Your task to perform on an android device: Open CNN.com Image 0: 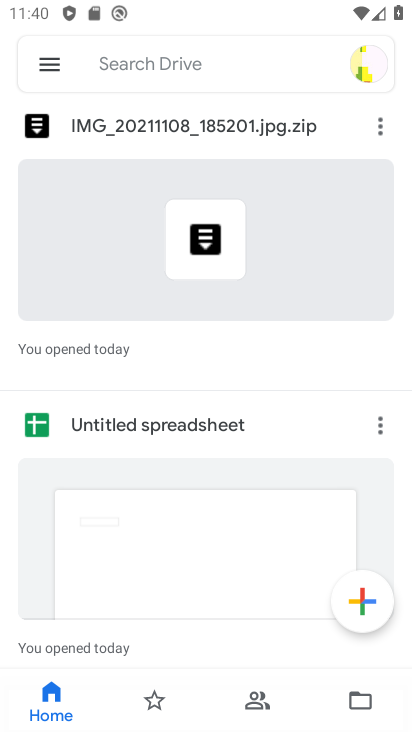
Step 0: press home button
Your task to perform on an android device: Open CNN.com Image 1: 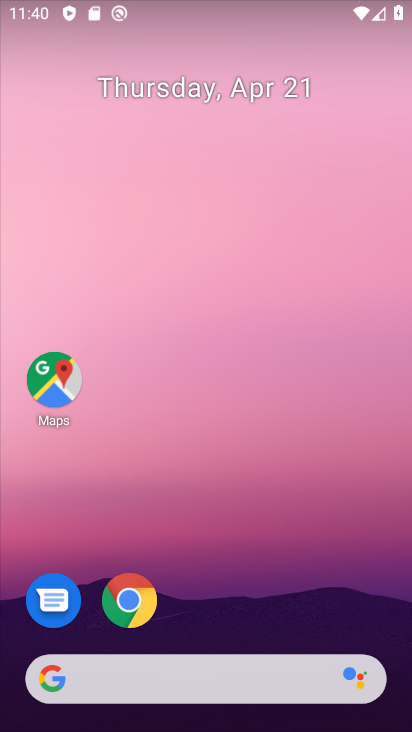
Step 1: click (127, 596)
Your task to perform on an android device: Open CNN.com Image 2: 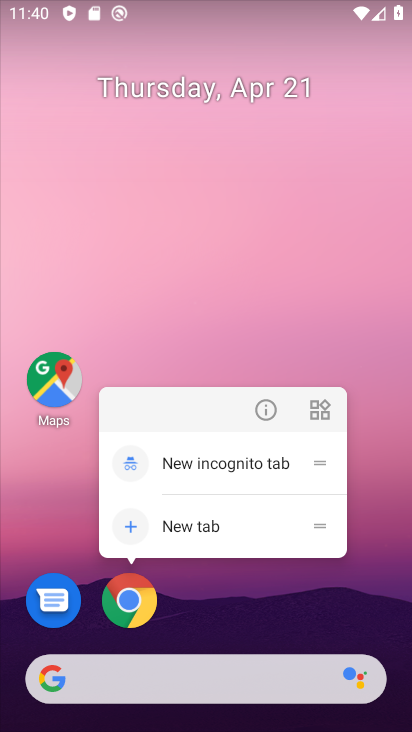
Step 2: click (125, 615)
Your task to perform on an android device: Open CNN.com Image 3: 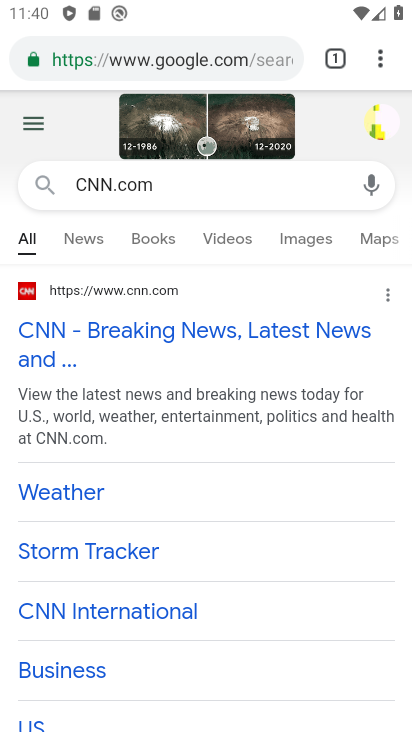
Step 3: click (187, 61)
Your task to perform on an android device: Open CNN.com Image 4: 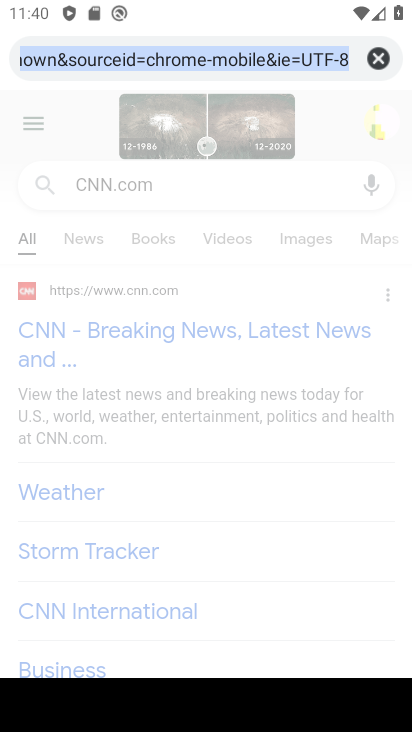
Step 4: task complete